Your task to perform on an android device: Open my contact list Image 0: 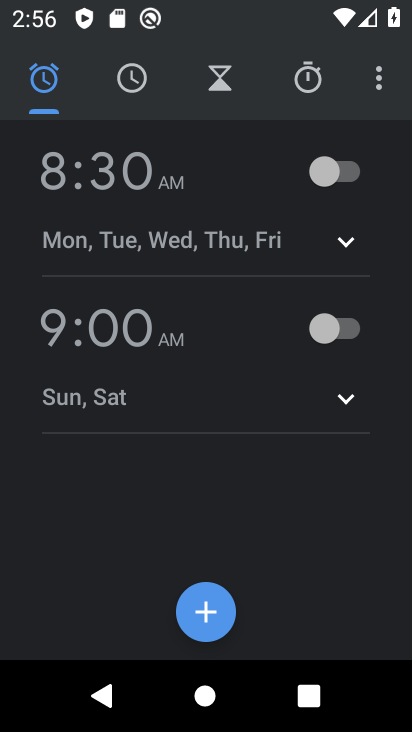
Step 0: press home button
Your task to perform on an android device: Open my contact list Image 1: 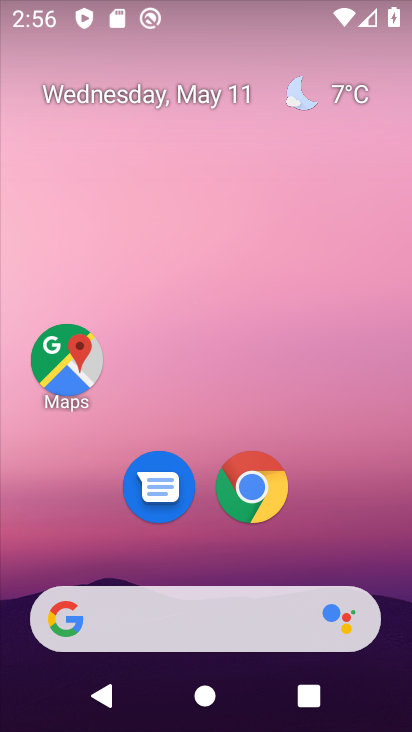
Step 1: drag from (227, 591) to (254, 284)
Your task to perform on an android device: Open my contact list Image 2: 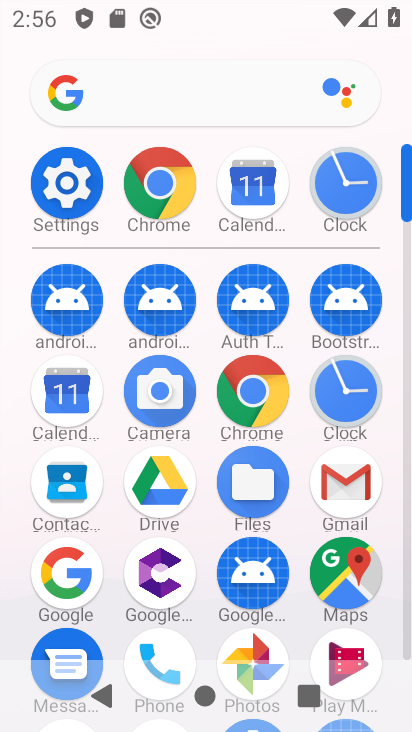
Step 2: click (79, 501)
Your task to perform on an android device: Open my contact list Image 3: 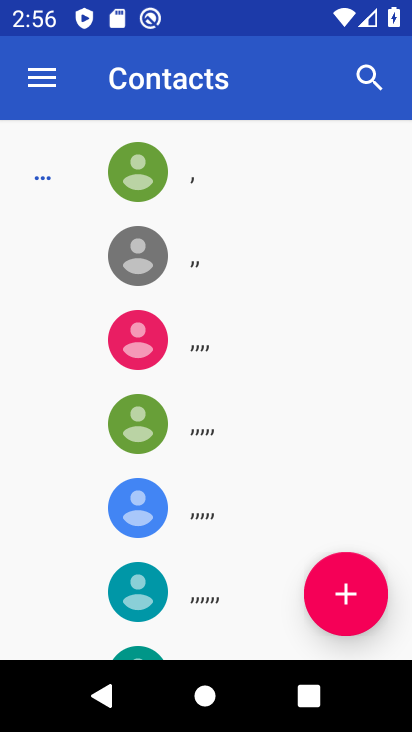
Step 3: task complete